Your task to perform on an android device: Go to display settings Image 0: 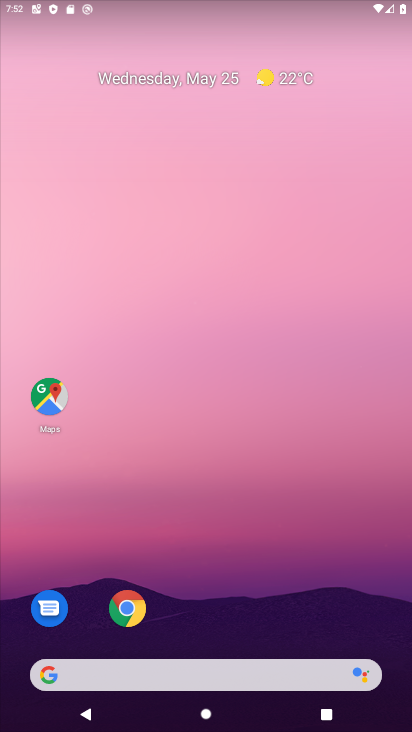
Step 0: drag from (271, 588) to (286, 154)
Your task to perform on an android device: Go to display settings Image 1: 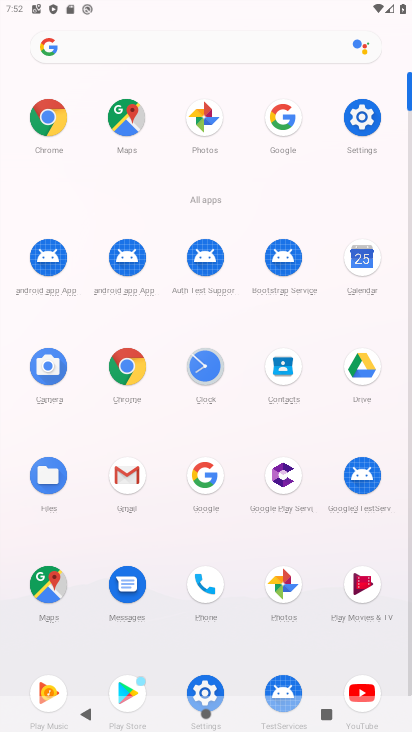
Step 1: click (362, 118)
Your task to perform on an android device: Go to display settings Image 2: 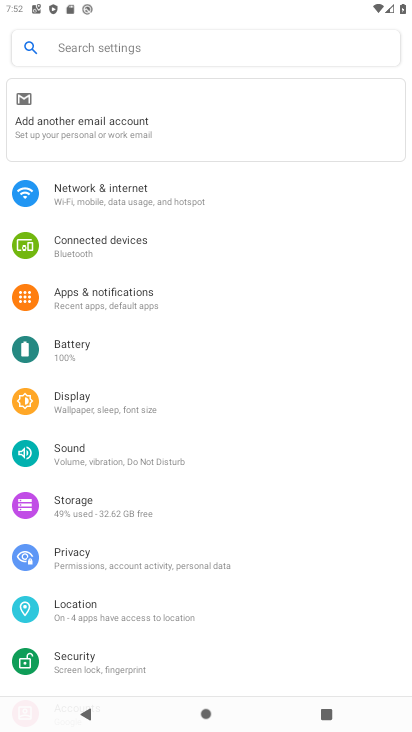
Step 2: click (94, 412)
Your task to perform on an android device: Go to display settings Image 3: 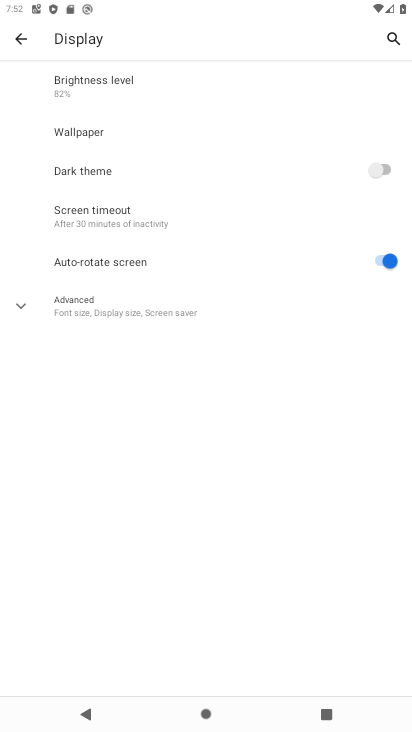
Step 3: task complete